Your task to perform on an android device: turn on improve location accuracy Image 0: 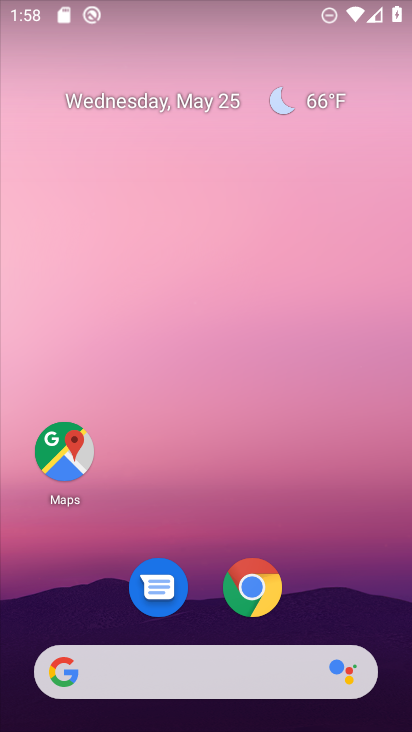
Step 0: drag from (387, 610) to (385, 61)
Your task to perform on an android device: turn on improve location accuracy Image 1: 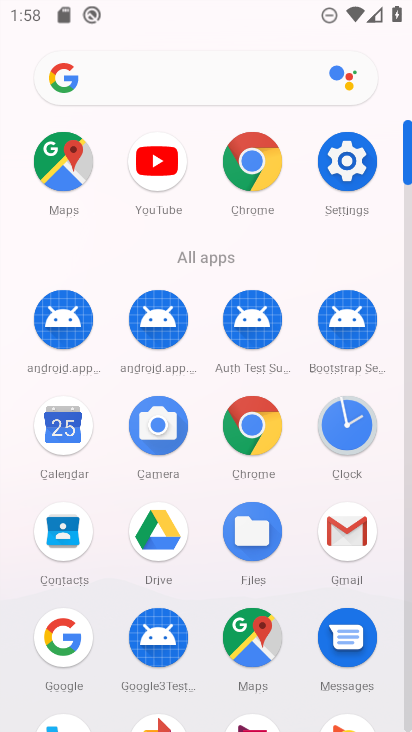
Step 1: click (354, 179)
Your task to perform on an android device: turn on improve location accuracy Image 2: 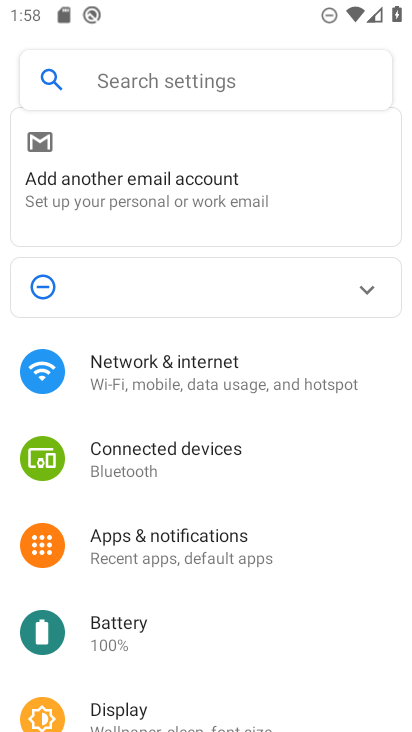
Step 2: drag from (355, 618) to (362, 431)
Your task to perform on an android device: turn on improve location accuracy Image 3: 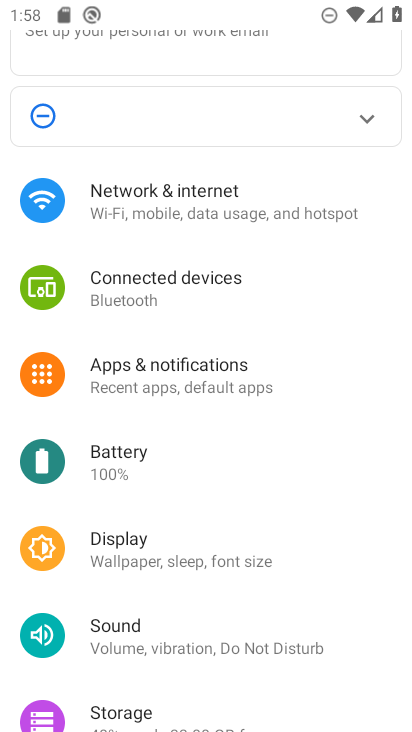
Step 3: drag from (330, 590) to (340, 436)
Your task to perform on an android device: turn on improve location accuracy Image 4: 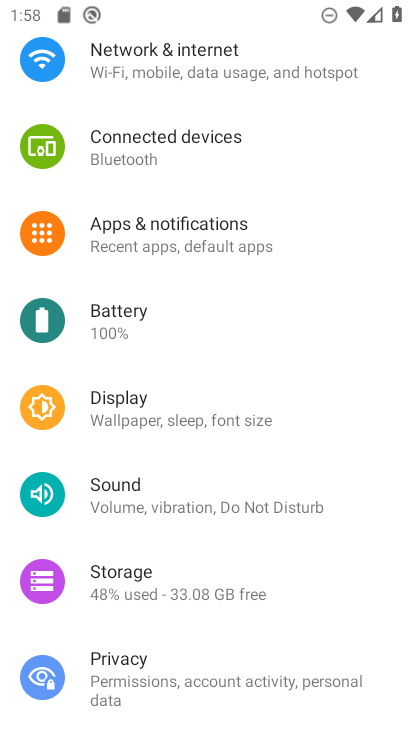
Step 4: drag from (336, 593) to (346, 441)
Your task to perform on an android device: turn on improve location accuracy Image 5: 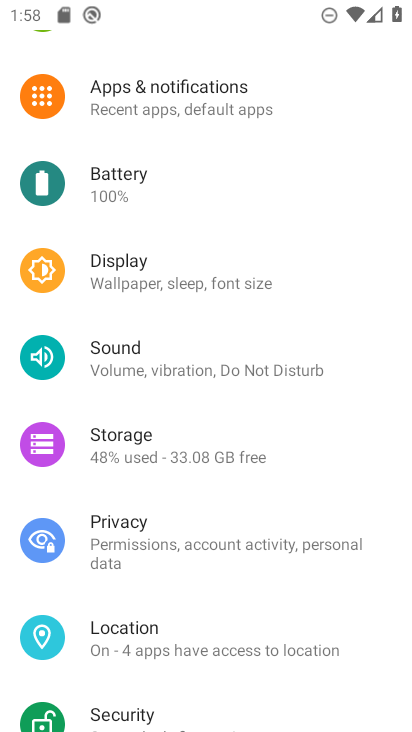
Step 5: drag from (359, 666) to (366, 514)
Your task to perform on an android device: turn on improve location accuracy Image 6: 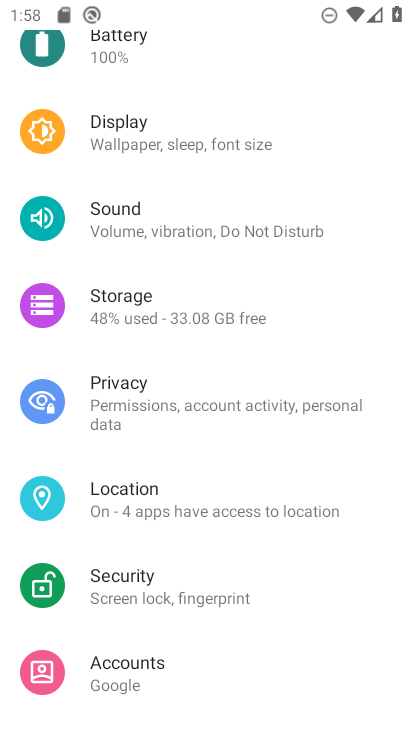
Step 6: drag from (345, 650) to (357, 508)
Your task to perform on an android device: turn on improve location accuracy Image 7: 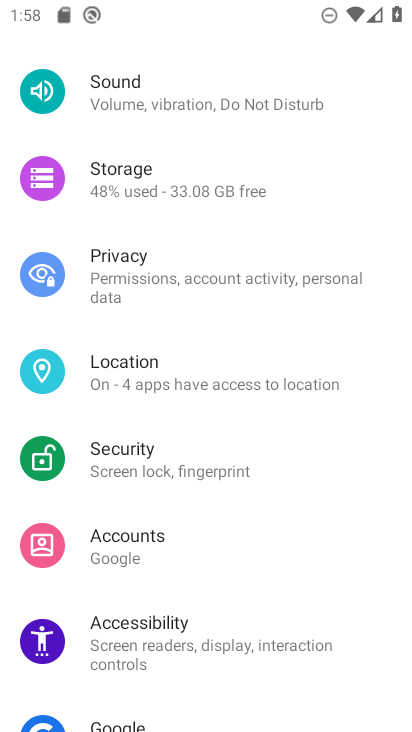
Step 7: drag from (362, 646) to (356, 539)
Your task to perform on an android device: turn on improve location accuracy Image 8: 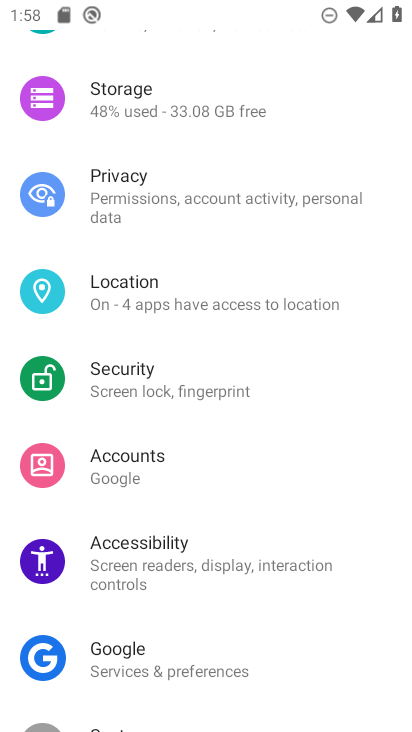
Step 8: drag from (339, 428) to (340, 491)
Your task to perform on an android device: turn on improve location accuracy Image 9: 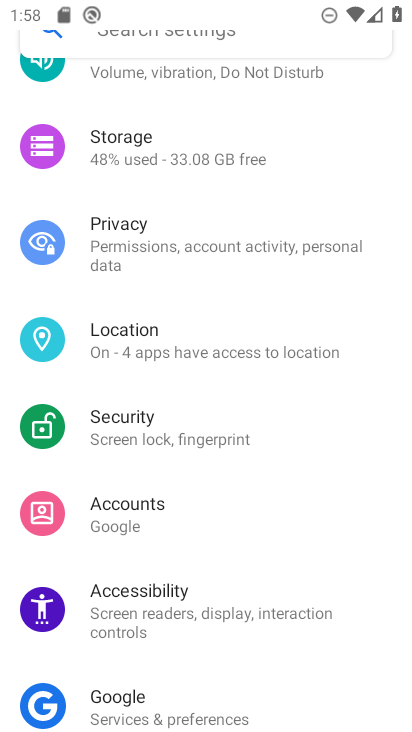
Step 9: click (301, 352)
Your task to perform on an android device: turn on improve location accuracy Image 10: 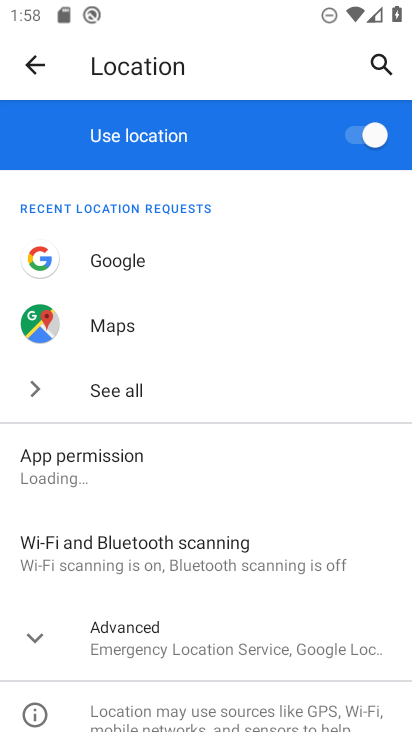
Step 10: click (247, 638)
Your task to perform on an android device: turn on improve location accuracy Image 11: 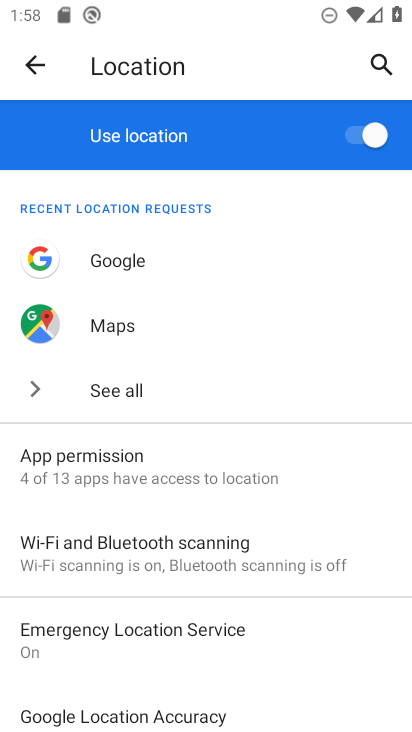
Step 11: drag from (325, 673) to (347, 540)
Your task to perform on an android device: turn on improve location accuracy Image 12: 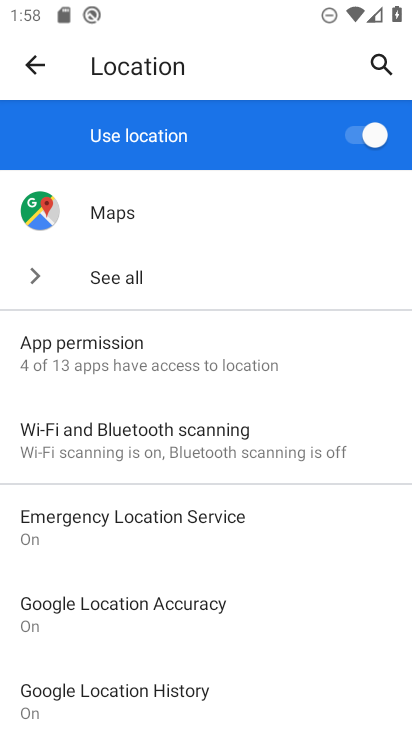
Step 12: drag from (338, 669) to (352, 577)
Your task to perform on an android device: turn on improve location accuracy Image 13: 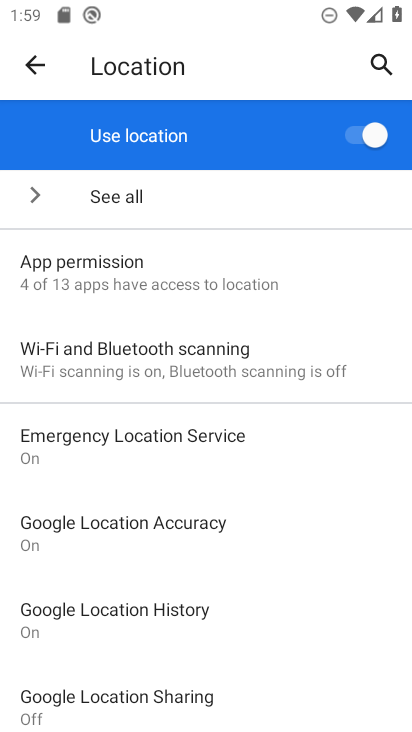
Step 13: click (163, 528)
Your task to perform on an android device: turn on improve location accuracy Image 14: 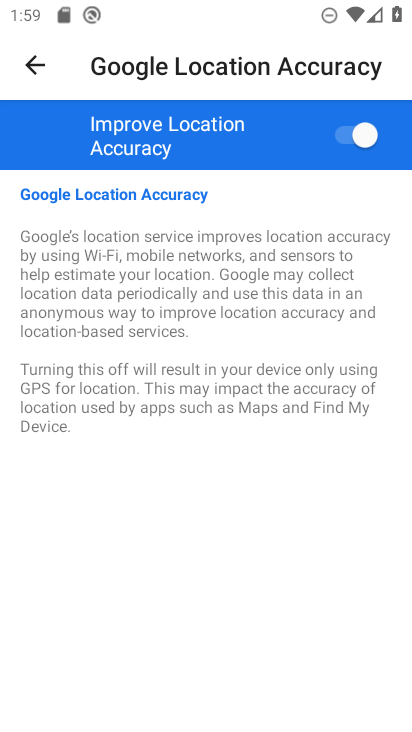
Step 14: task complete